Your task to perform on an android device: What is the news today? Image 0: 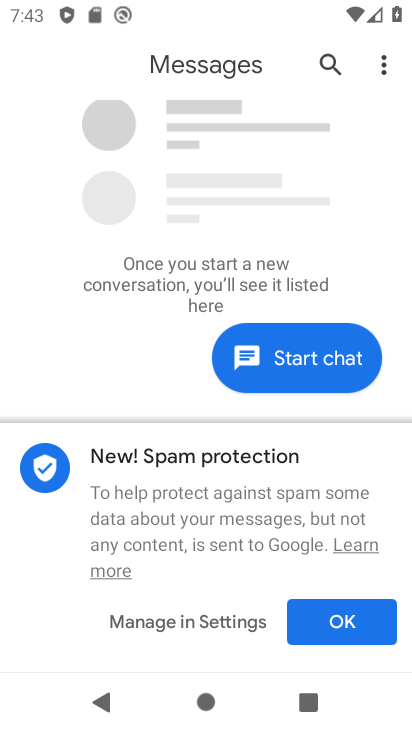
Step 0: press home button
Your task to perform on an android device: What is the news today? Image 1: 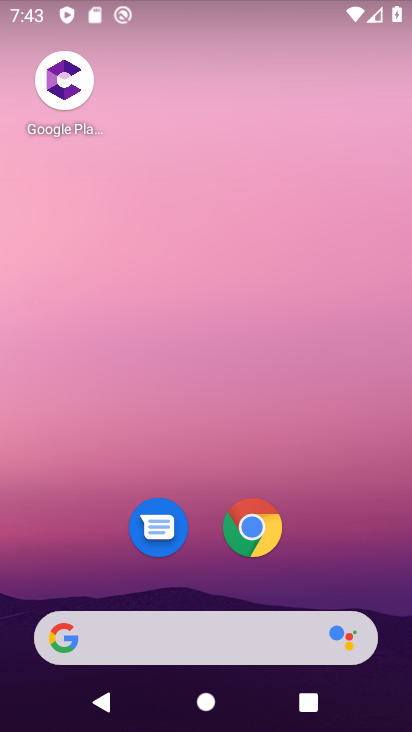
Step 1: task complete